Your task to perform on an android device: Go to Android settings Image 0: 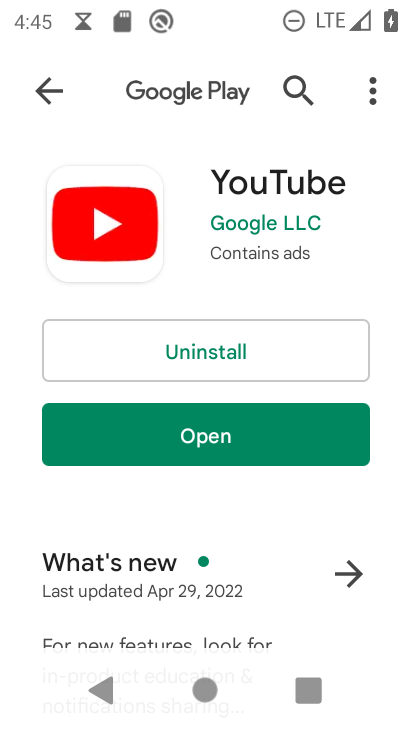
Step 0: press home button
Your task to perform on an android device: Go to Android settings Image 1: 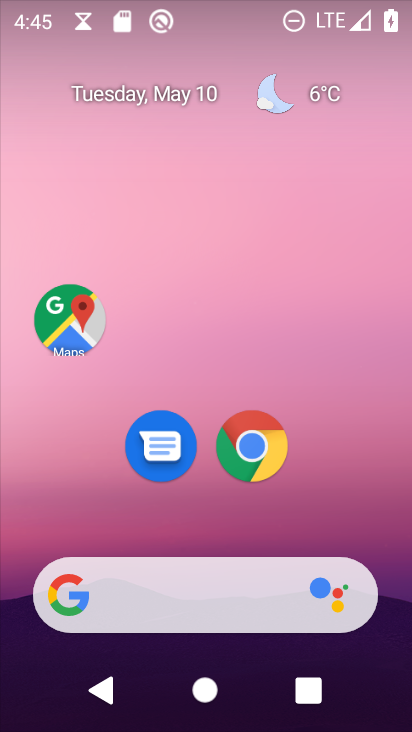
Step 1: drag from (310, 486) to (205, 32)
Your task to perform on an android device: Go to Android settings Image 2: 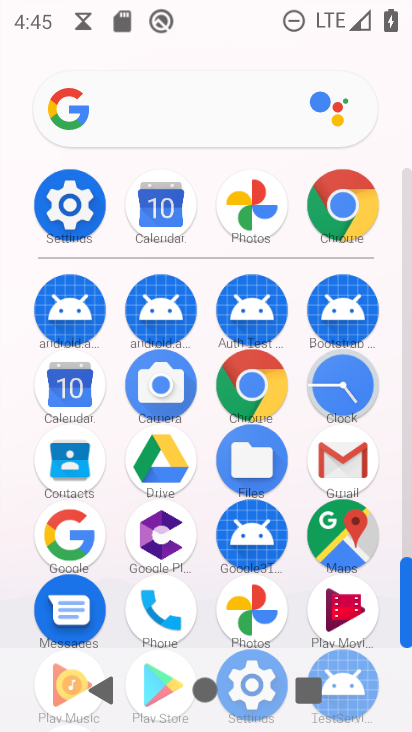
Step 2: click (72, 202)
Your task to perform on an android device: Go to Android settings Image 3: 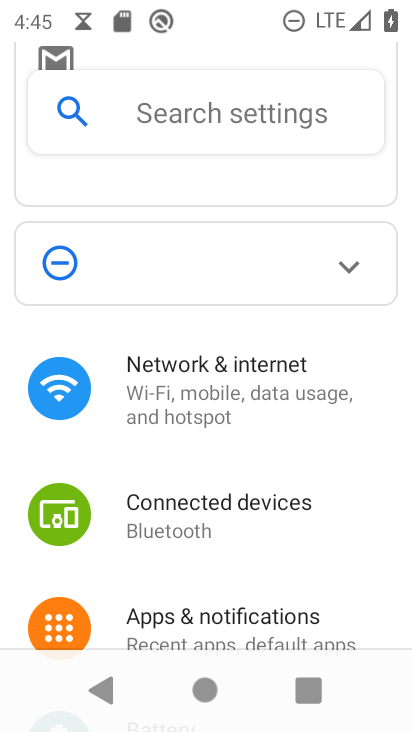
Step 3: drag from (247, 564) to (223, 181)
Your task to perform on an android device: Go to Android settings Image 4: 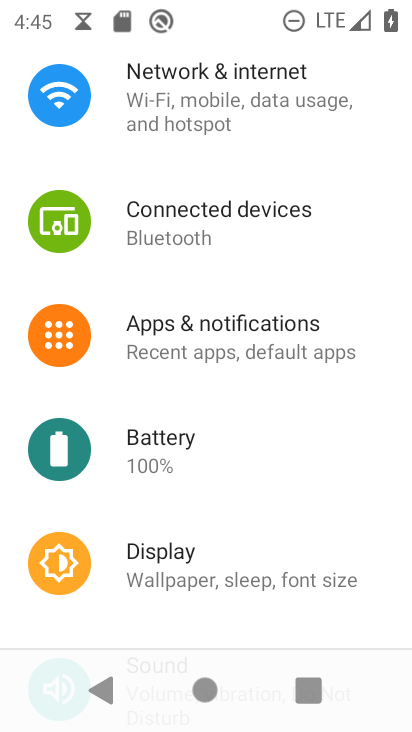
Step 4: drag from (249, 500) to (246, 93)
Your task to perform on an android device: Go to Android settings Image 5: 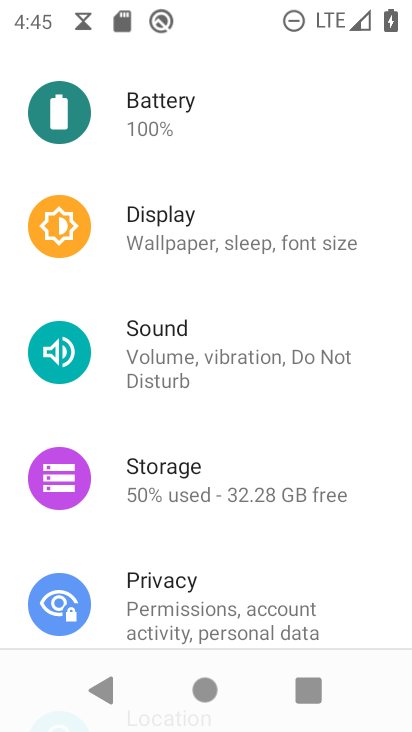
Step 5: drag from (229, 536) to (226, 150)
Your task to perform on an android device: Go to Android settings Image 6: 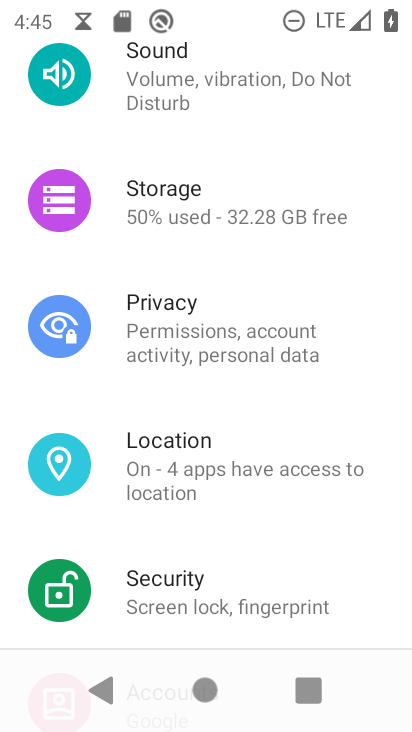
Step 6: drag from (234, 583) to (233, 140)
Your task to perform on an android device: Go to Android settings Image 7: 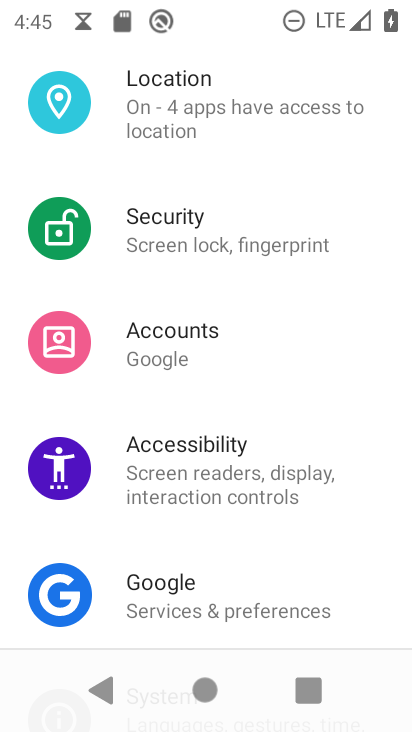
Step 7: drag from (215, 556) to (205, 64)
Your task to perform on an android device: Go to Android settings Image 8: 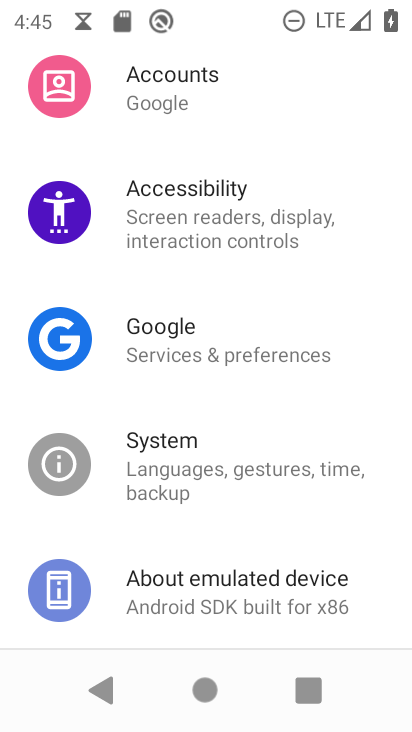
Step 8: click (224, 576)
Your task to perform on an android device: Go to Android settings Image 9: 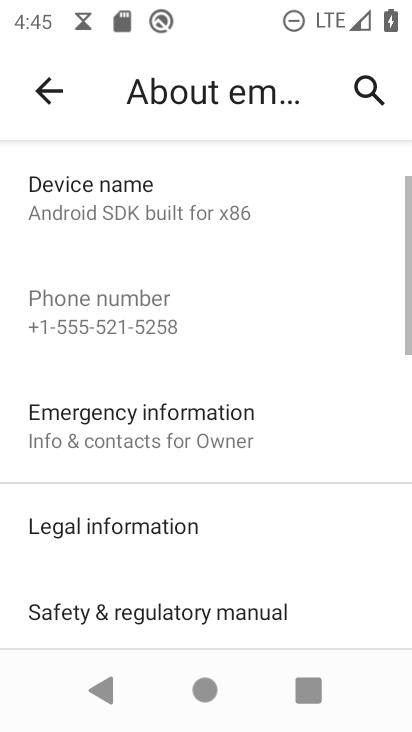
Step 9: drag from (179, 532) to (167, 180)
Your task to perform on an android device: Go to Android settings Image 10: 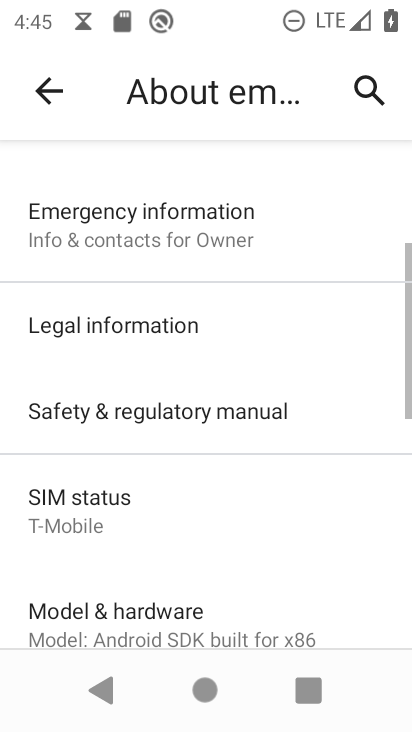
Step 10: drag from (164, 542) to (162, 227)
Your task to perform on an android device: Go to Android settings Image 11: 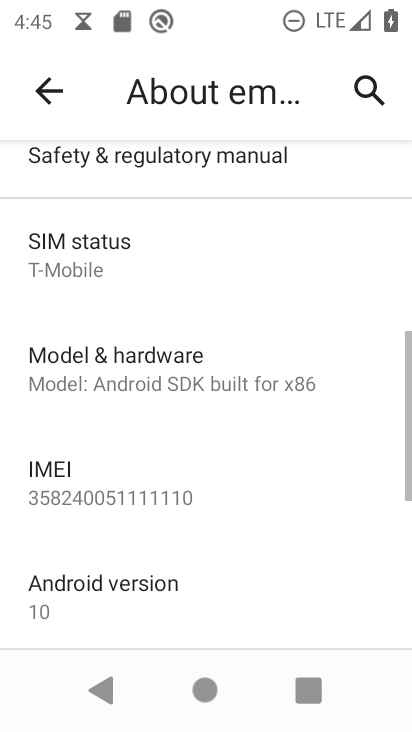
Step 11: click (104, 592)
Your task to perform on an android device: Go to Android settings Image 12: 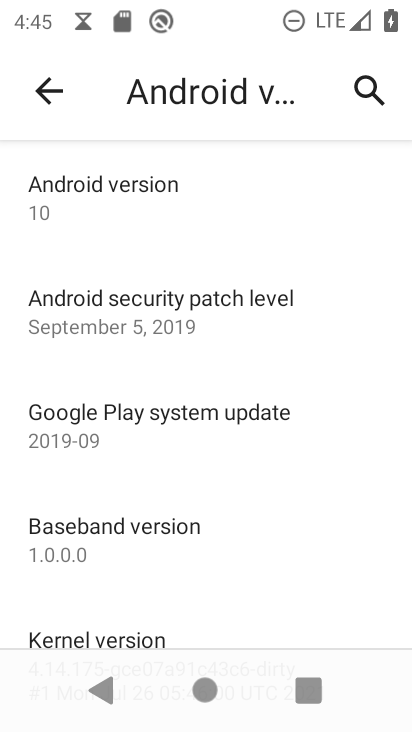
Step 12: task complete